Your task to perform on an android device: Open calendar and show me the second week of next month Image 0: 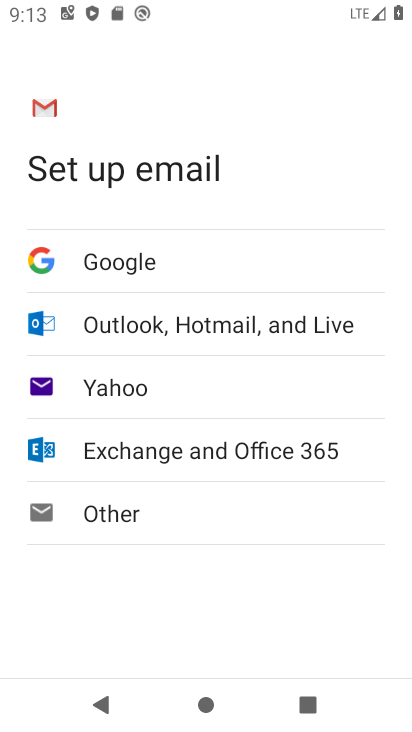
Step 0: press home button
Your task to perform on an android device: Open calendar and show me the second week of next month Image 1: 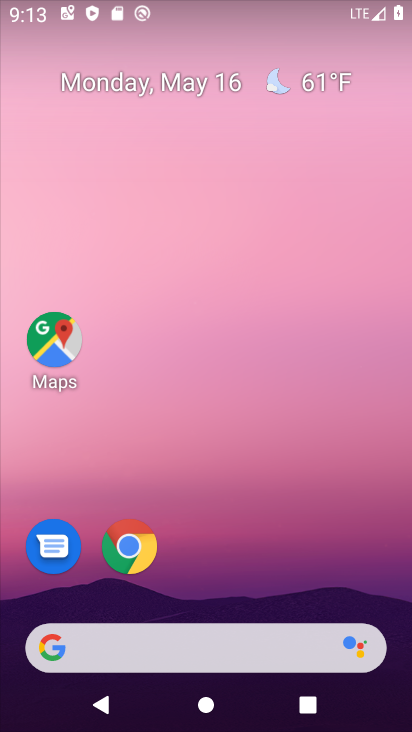
Step 1: drag from (296, 563) to (232, 168)
Your task to perform on an android device: Open calendar and show me the second week of next month Image 2: 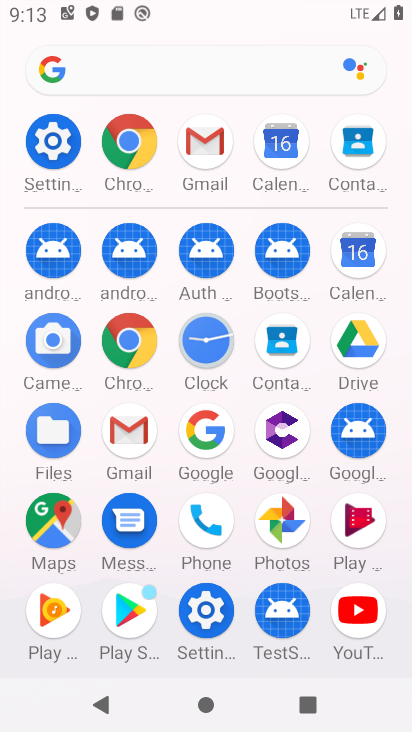
Step 2: click (273, 144)
Your task to perform on an android device: Open calendar and show me the second week of next month Image 3: 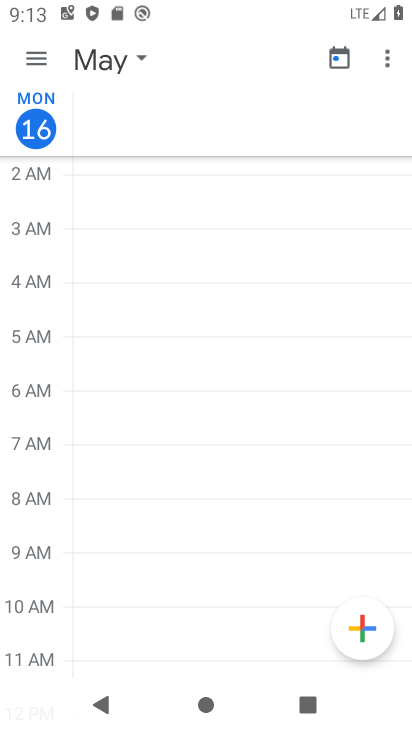
Step 3: click (45, 65)
Your task to perform on an android device: Open calendar and show me the second week of next month Image 4: 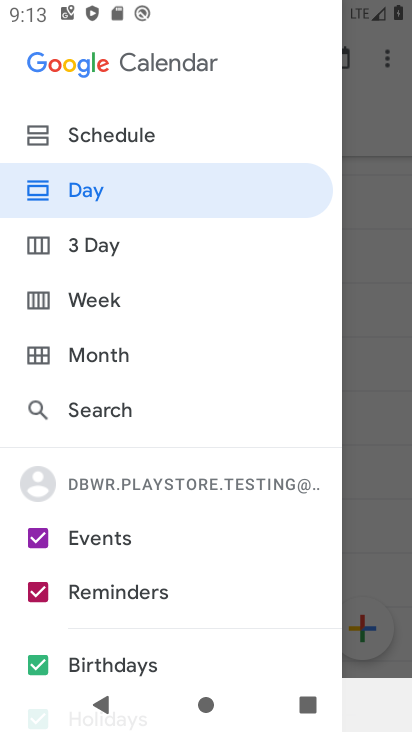
Step 4: click (135, 294)
Your task to perform on an android device: Open calendar and show me the second week of next month Image 5: 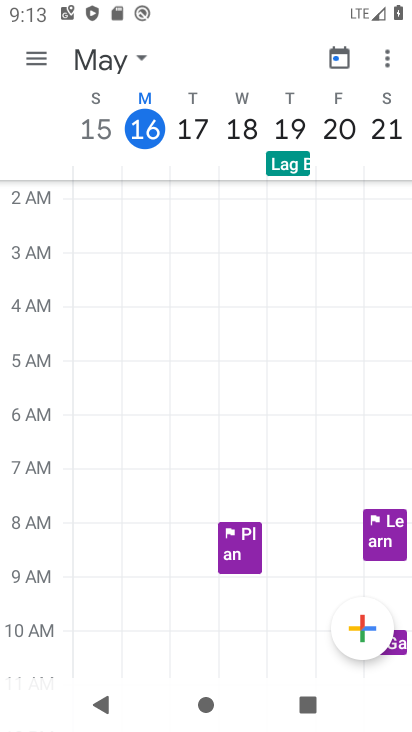
Step 5: click (120, 61)
Your task to perform on an android device: Open calendar and show me the second week of next month Image 6: 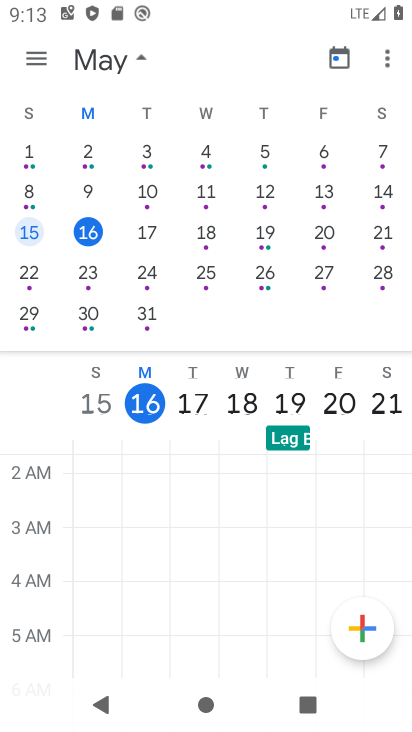
Step 6: drag from (367, 238) to (38, 183)
Your task to perform on an android device: Open calendar and show me the second week of next month Image 7: 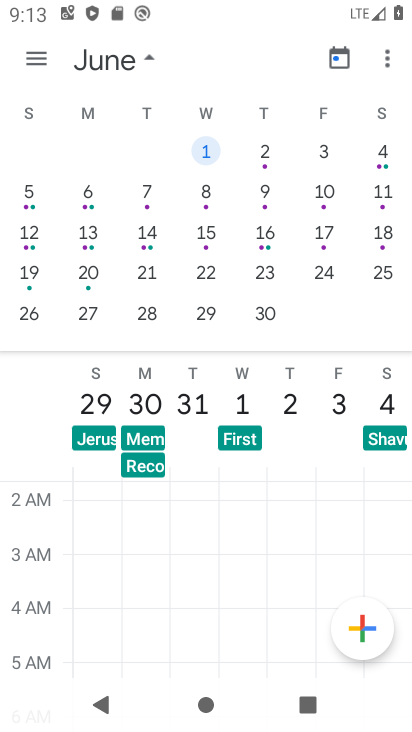
Step 7: click (91, 235)
Your task to perform on an android device: Open calendar and show me the second week of next month Image 8: 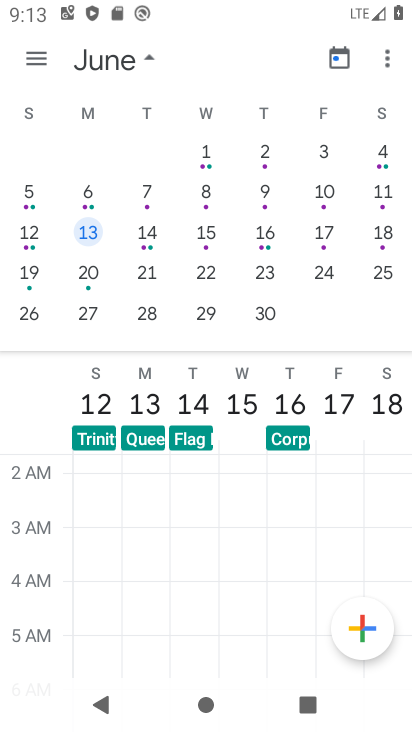
Step 8: task complete